Your task to perform on an android device: turn pop-ups on in chrome Image 0: 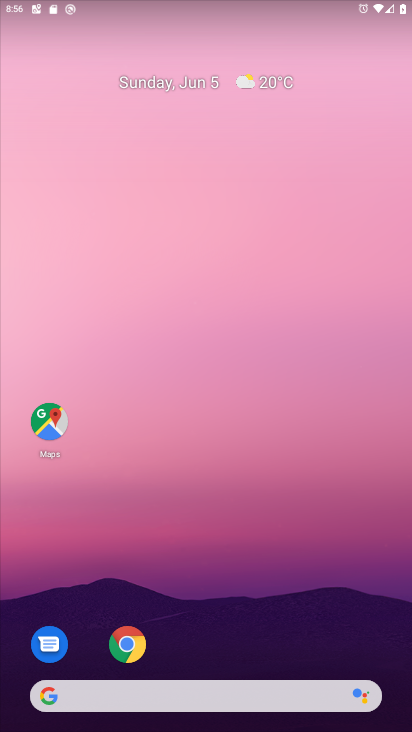
Step 0: drag from (270, 609) to (283, 197)
Your task to perform on an android device: turn pop-ups on in chrome Image 1: 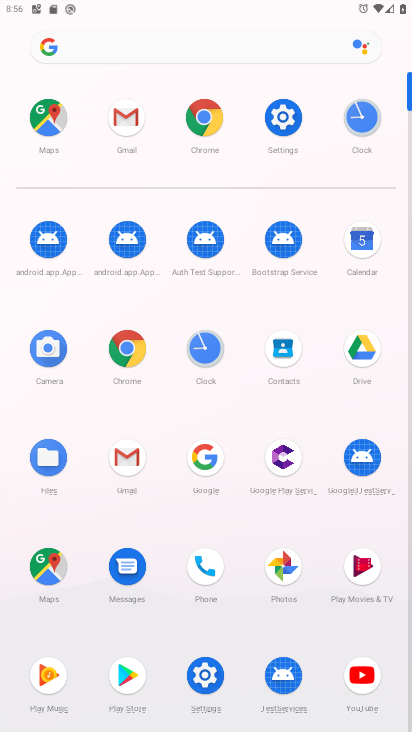
Step 1: click (135, 355)
Your task to perform on an android device: turn pop-ups on in chrome Image 2: 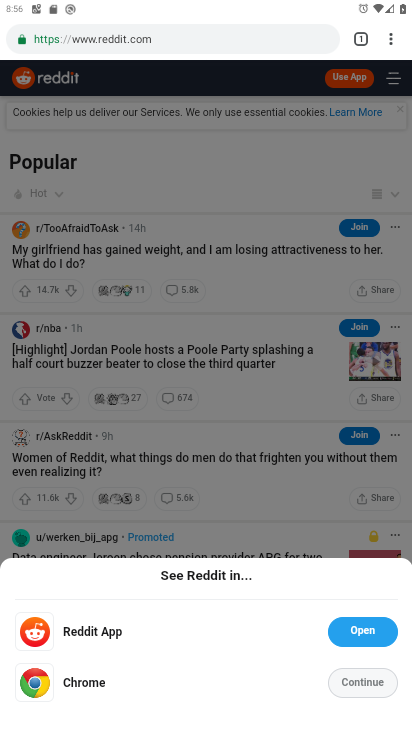
Step 2: drag from (384, 48) to (317, 458)
Your task to perform on an android device: turn pop-ups on in chrome Image 3: 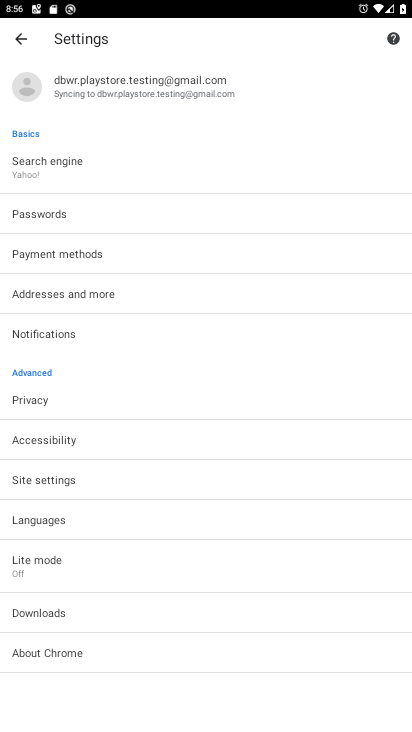
Step 3: drag from (224, 614) to (199, 284)
Your task to perform on an android device: turn pop-ups on in chrome Image 4: 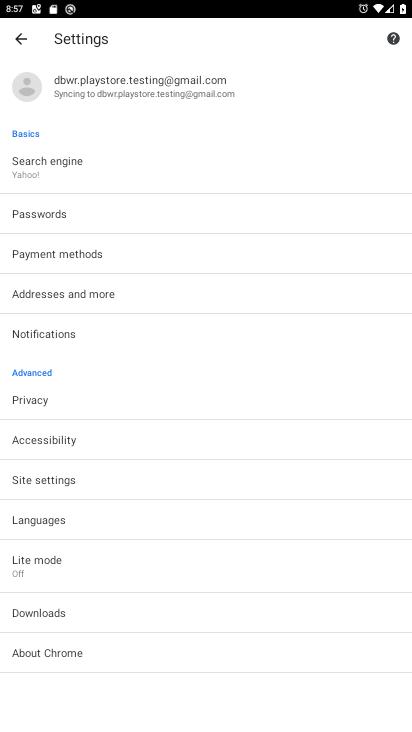
Step 4: click (154, 486)
Your task to perform on an android device: turn pop-ups on in chrome Image 5: 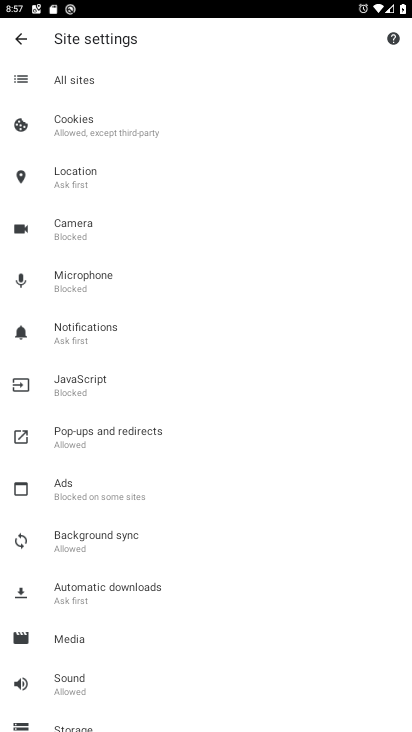
Step 5: click (141, 424)
Your task to perform on an android device: turn pop-ups on in chrome Image 6: 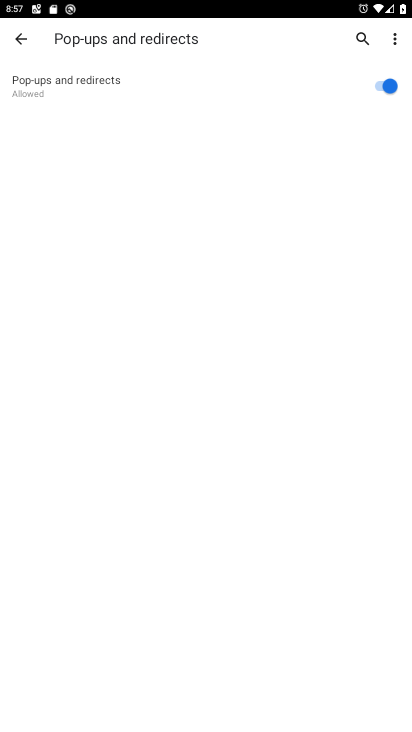
Step 6: task complete